Your task to perform on an android device: read, delete, or share a saved page in the chrome app Image 0: 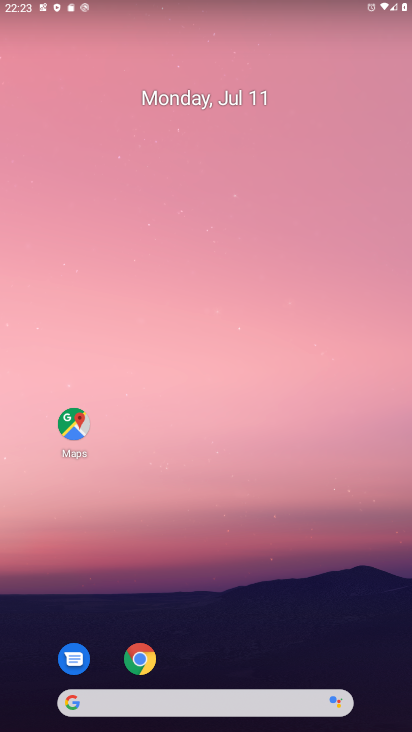
Step 0: drag from (186, 668) to (249, 89)
Your task to perform on an android device: read, delete, or share a saved page in the chrome app Image 1: 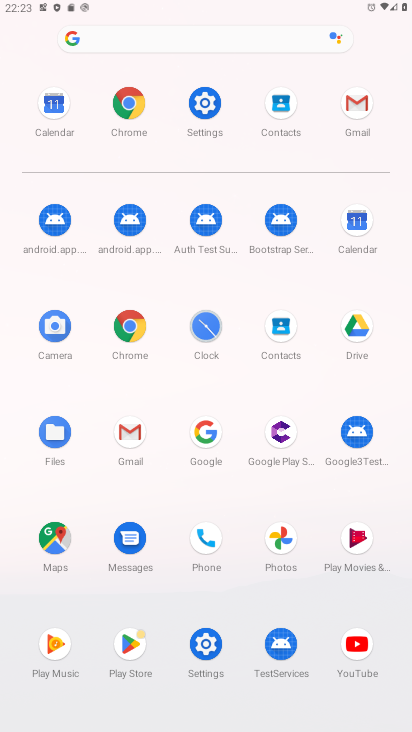
Step 1: click (128, 323)
Your task to perform on an android device: read, delete, or share a saved page in the chrome app Image 2: 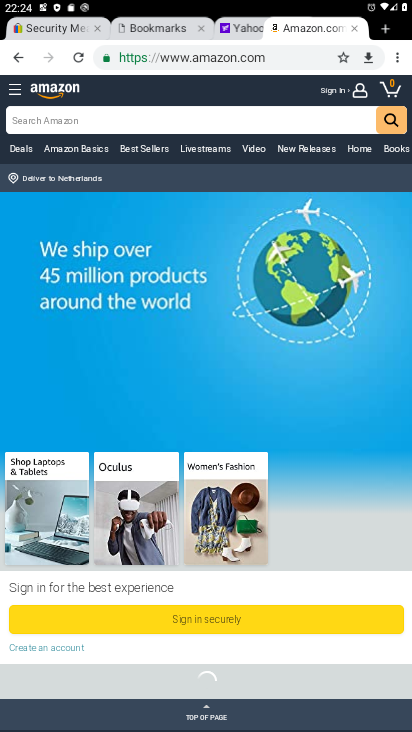
Step 2: click (402, 51)
Your task to perform on an android device: read, delete, or share a saved page in the chrome app Image 3: 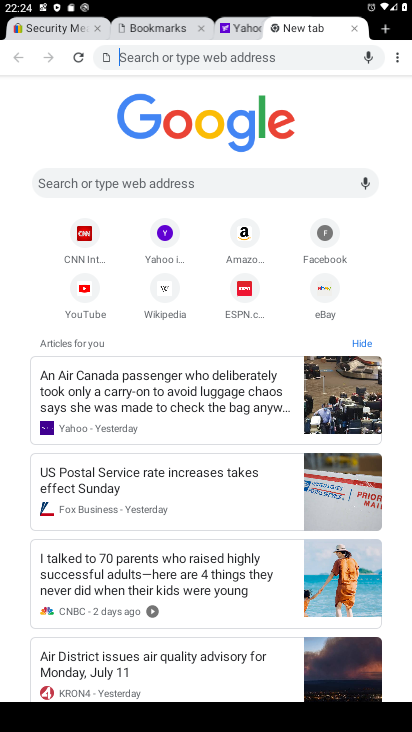
Step 3: click (401, 57)
Your task to perform on an android device: read, delete, or share a saved page in the chrome app Image 4: 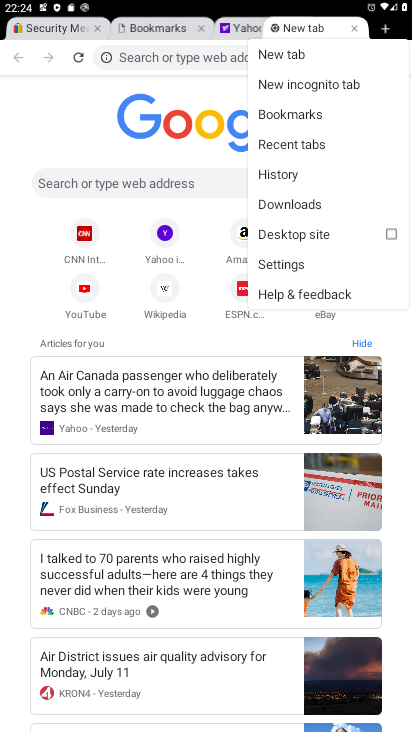
Step 4: click (293, 108)
Your task to perform on an android device: read, delete, or share a saved page in the chrome app Image 5: 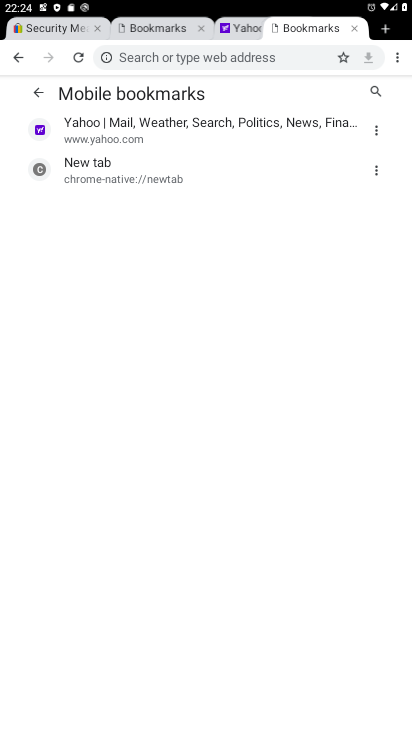
Step 5: drag from (202, 283) to (257, 647)
Your task to perform on an android device: read, delete, or share a saved page in the chrome app Image 6: 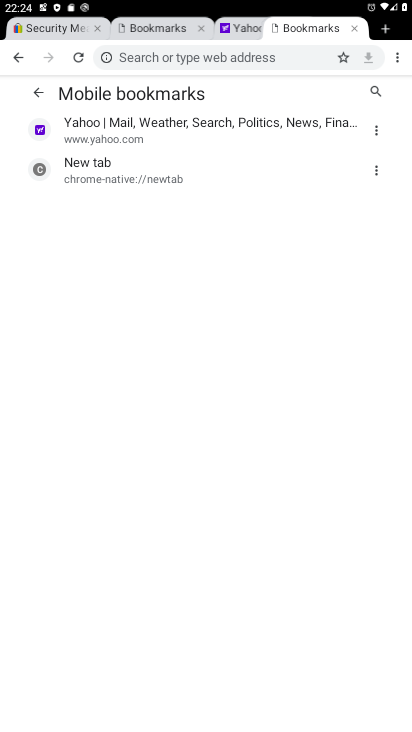
Step 6: drag from (211, 282) to (341, 586)
Your task to perform on an android device: read, delete, or share a saved page in the chrome app Image 7: 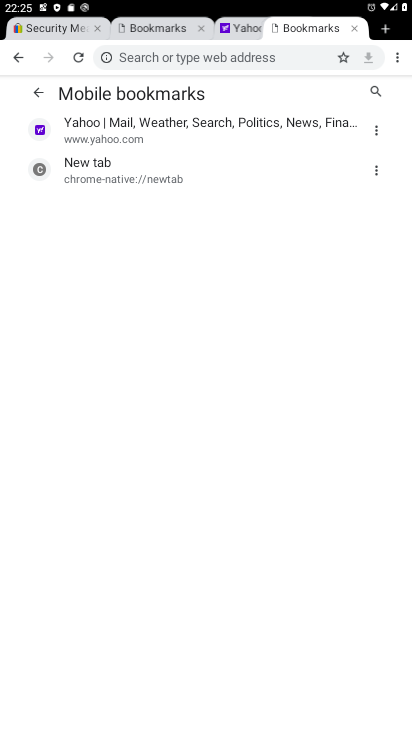
Step 7: click (168, 126)
Your task to perform on an android device: read, delete, or share a saved page in the chrome app Image 8: 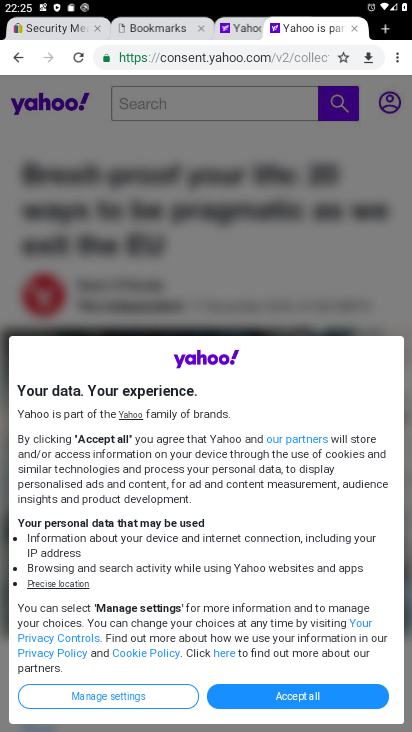
Step 8: task complete